Your task to perform on an android device: Is it going to rain this weekend? Image 0: 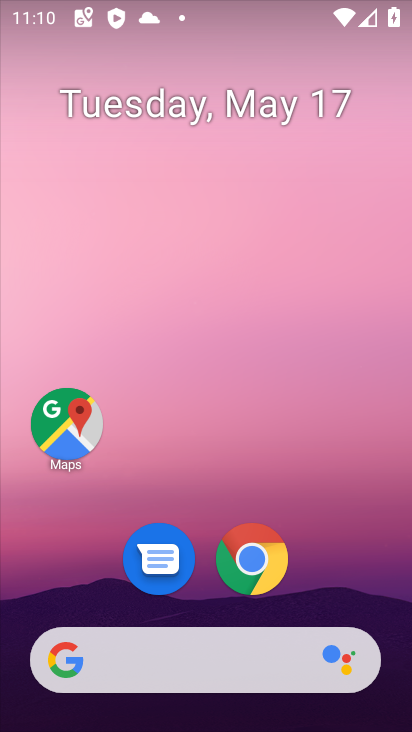
Step 0: drag from (210, 725) to (71, 731)
Your task to perform on an android device: Is it going to rain this weekend? Image 1: 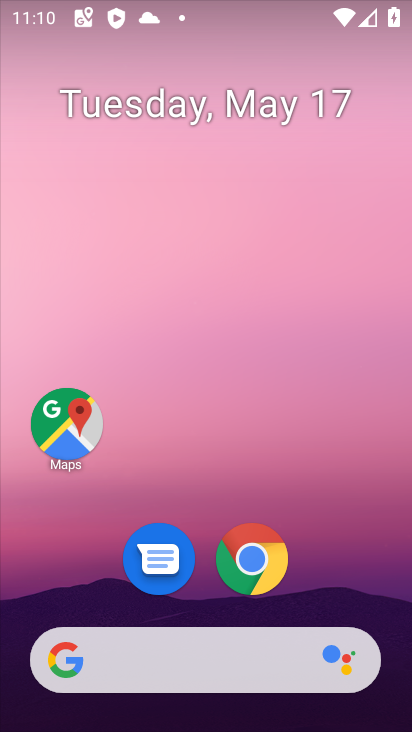
Step 1: click (277, 660)
Your task to perform on an android device: Is it going to rain this weekend? Image 2: 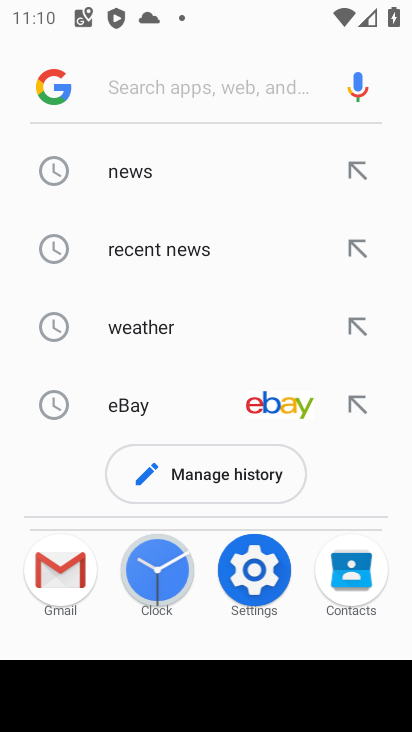
Step 2: type "Is it going to rain this weekend?"
Your task to perform on an android device: Is it going to rain this weekend? Image 3: 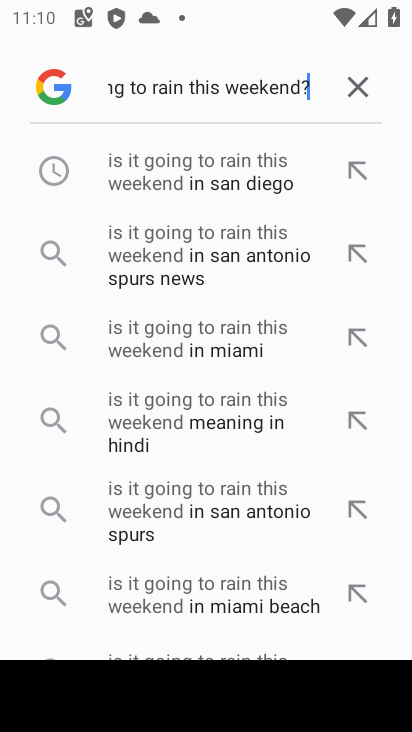
Step 3: type "near me"
Your task to perform on an android device: Is it going to rain this weekend? Image 4: 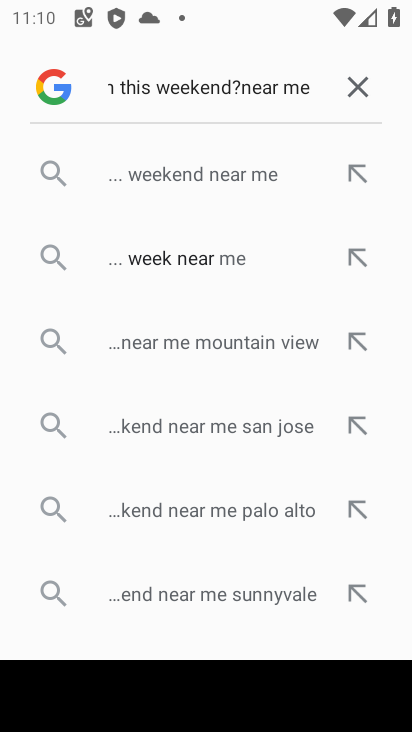
Step 4: click (232, 160)
Your task to perform on an android device: Is it going to rain this weekend? Image 5: 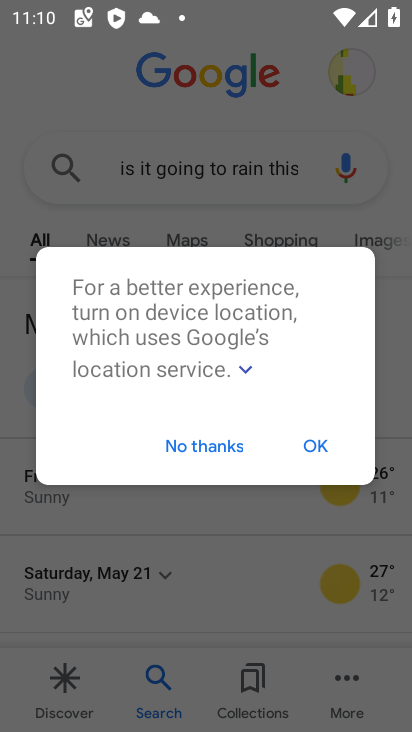
Step 5: click (183, 445)
Your task to perform on an android device: Is it going to rain this weekend? Image 6: 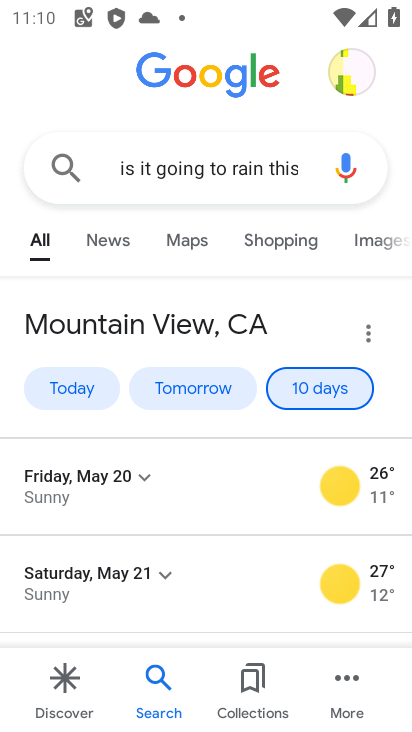
Step 6: task complete